Your task to perform on an android device: turn off notifications in google photos Image 0: 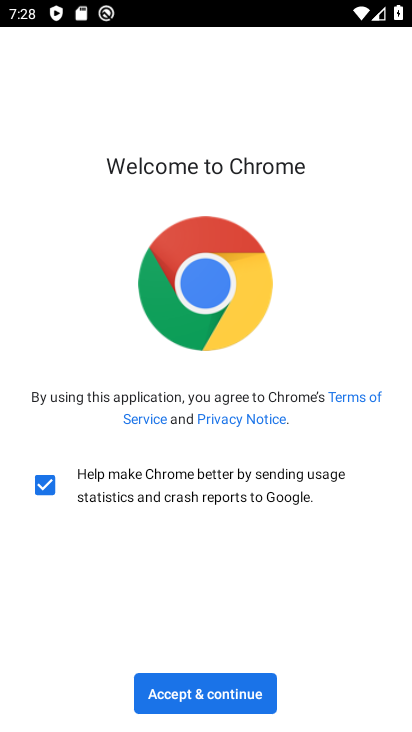
Step 0: press home button
Your task to perform on an android device: turn off notifications in google photos Image 1: 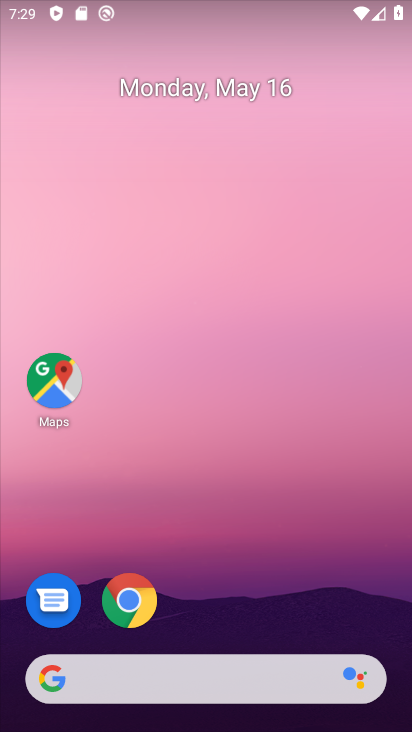
Step 1: drag from (171, 674) to (290, 95)
Your task to perform on an android device: turn off notifications in google photos Image 2: 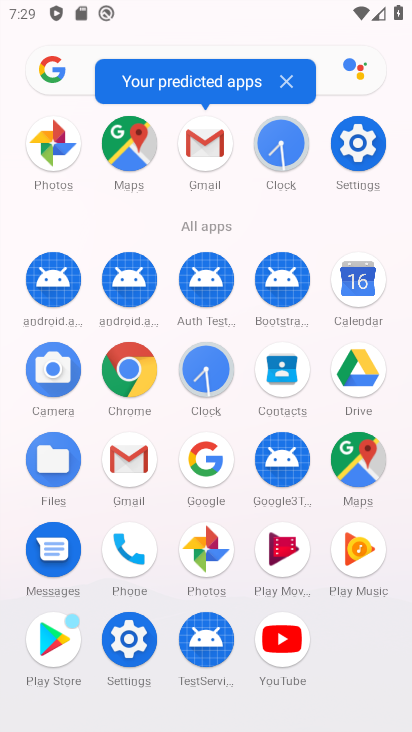
Step 2: click (204, 547)
Your task to perform on an android device: turn off notifications in google photos Image 3: 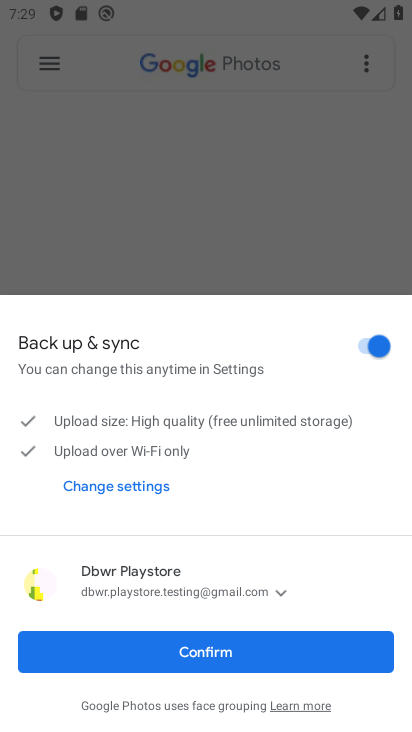
Step 3: click (187, 645)
Your task to perform on an android device: turn off notifications in google photos Image 4: 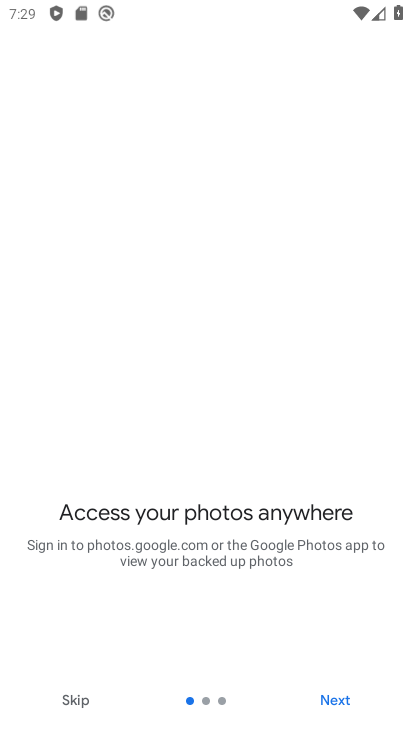
Step 4: click (329, 692)
Your task to perform on an android device: turn off notifications in google photos Image 5: 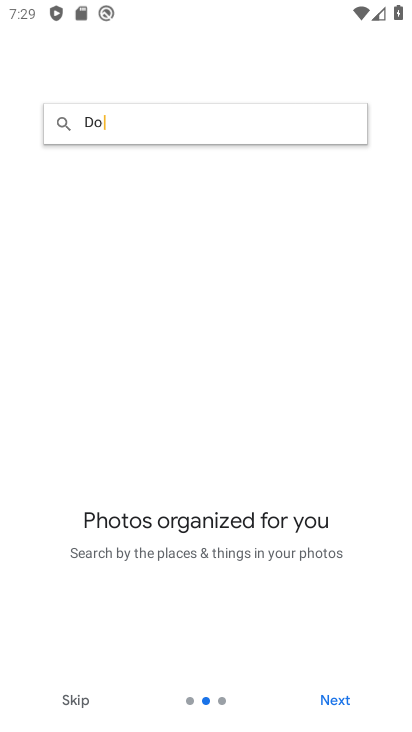
Step 5: click (329, 691)
Your task to perform on an android device: turn off notifications in google photos Image 6: 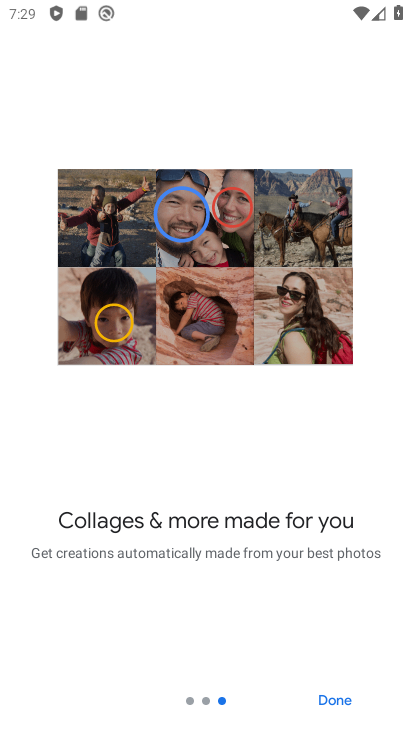
Step 6: click (329, 691)
Your task to perform on an android device: turn off notifications in google photos Image 7: 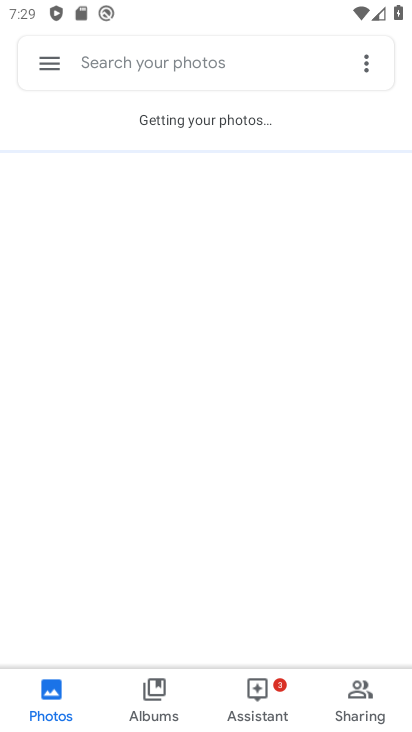
Step 7: click (52, 56)
Your task to perform on an android device: turn off notifications in google photos Image 8: 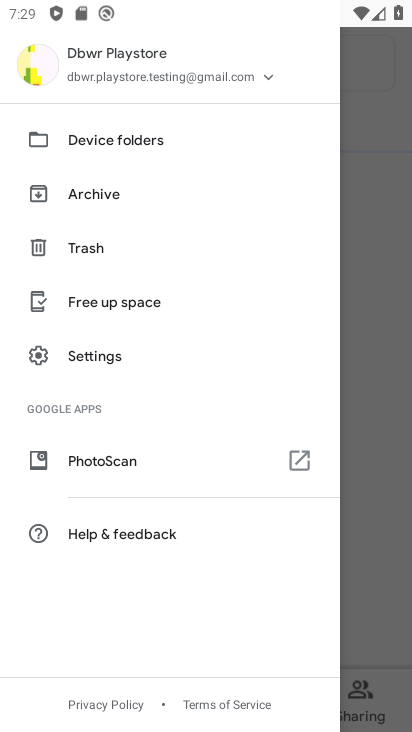
Step 8: click (93, 354)
Your task to perform on an android device: turn off notifications in google photos Image 9: 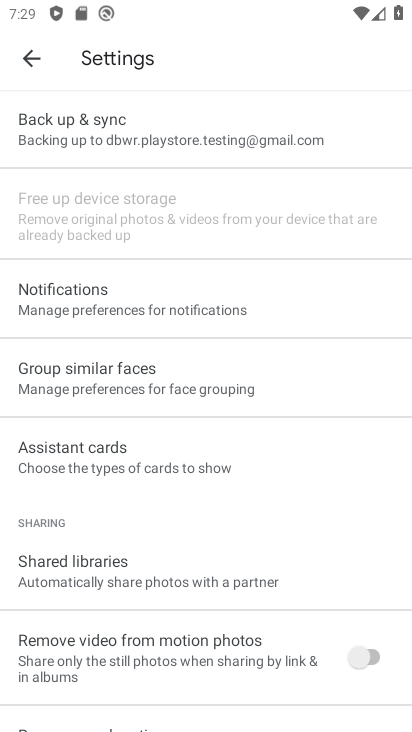
Step 9: click (116, 293)
Your task to perform on an android device: turn off notifications in google photos Image 10: 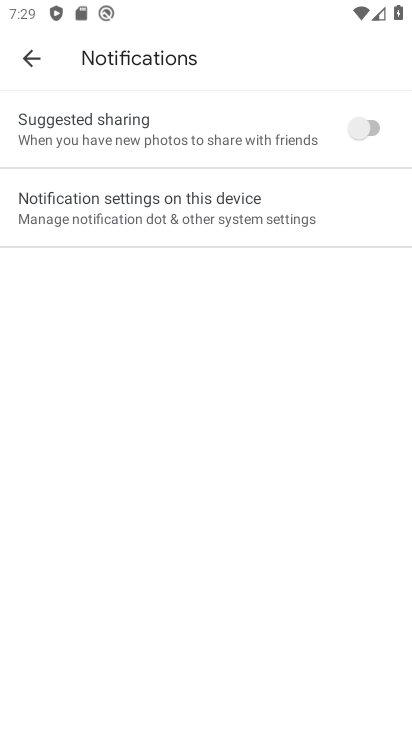
Step 10: click (124, 197)
Your task to perform on an android device: turn off notifications in google photos Image 11: 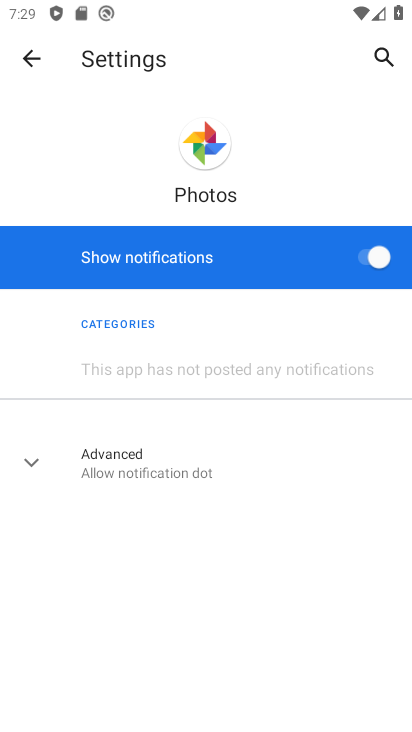
Step 11: click (362, 256)
Your task to perform on an android device: turn off notifications in google photos Image 12: 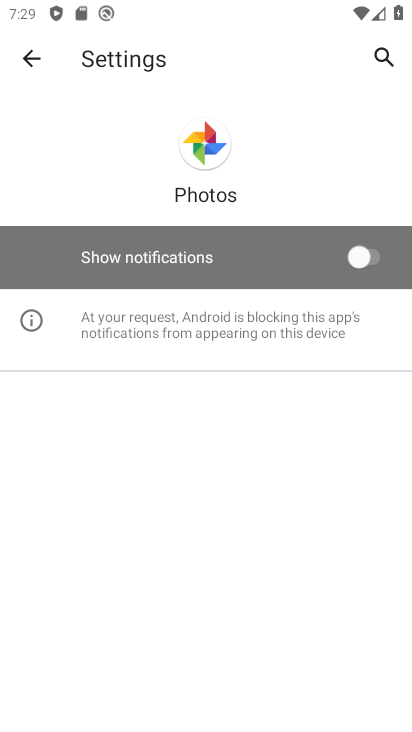
Step 12: task complete